Your task to perform on an android device: empty trash in the gmail app Image 0: 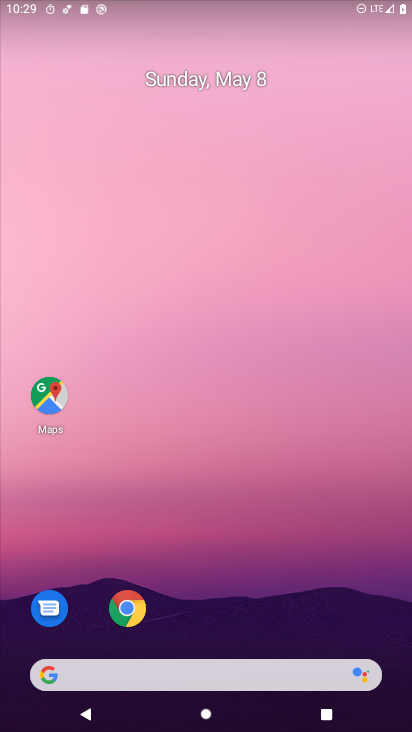
Step 0: drag from (174, 596) to (213, 281)
Your task to perform on an android device: empty trash in the gmail app Image 1: 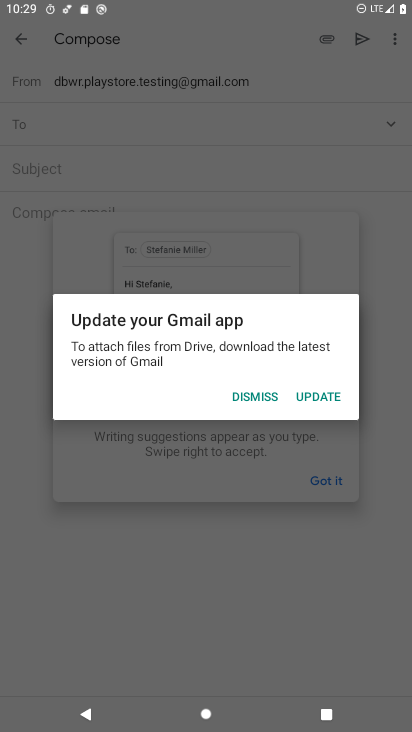
Step 1: press home button
Your task to perform on an android device: empty trash in the gmail app Image 2: 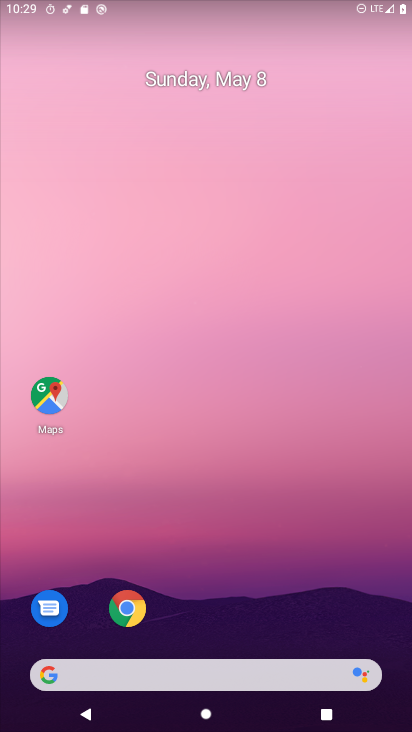
Step 2: drag from (159, 527) to (255, 165)
Your task to perform on an android device: empty trash in the gmail app Image 3: 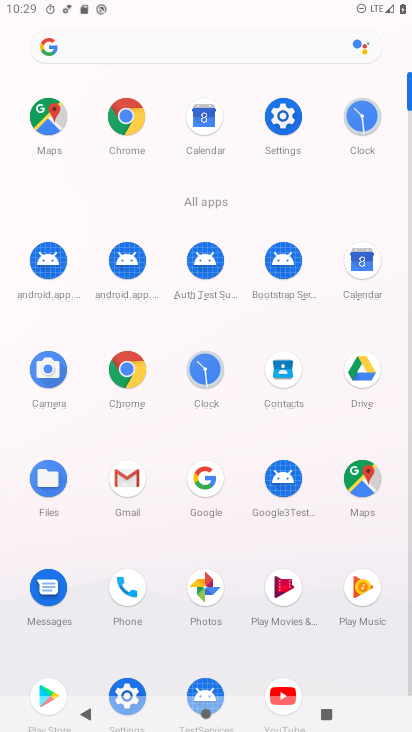
Step 3: click (127, 488)
Your task to perform on an android device: empty trash in the gmail app Image 4: 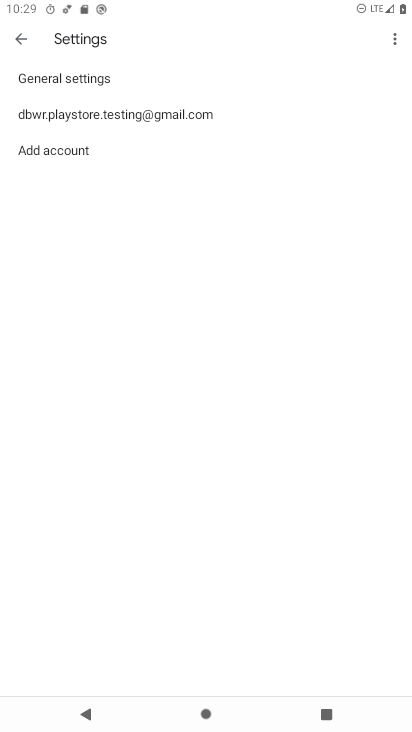
Step 4: click (120, 119)
Your task to perform on an android device: empty trash in the gmail app Image 5: 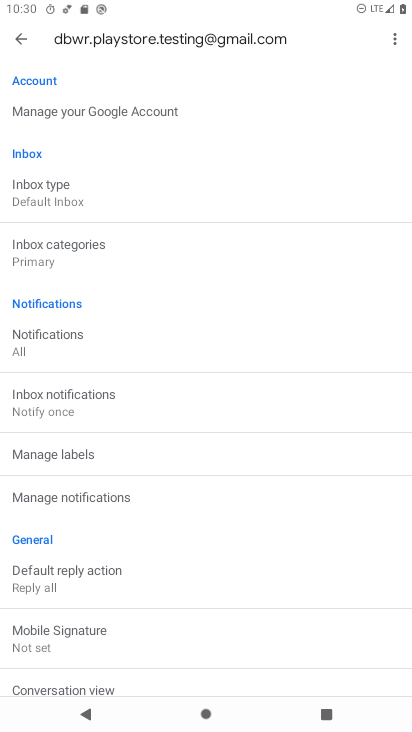
Step 5: click (19, 42)
Your task to perform on an android device: empty trash in the gmail app Image 6: 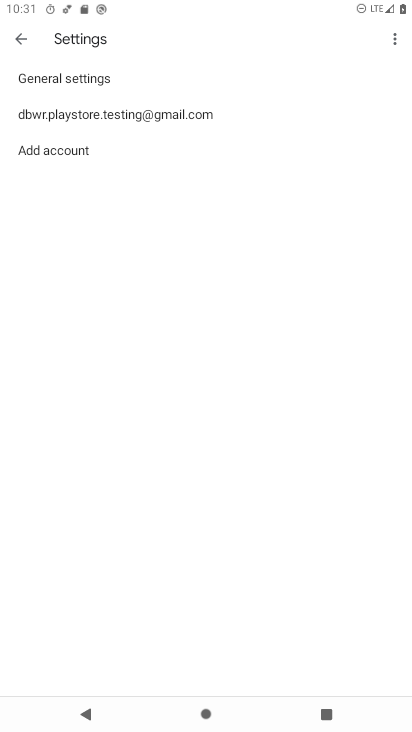
Step 6: click (18, 37)
Your task to perform on an android device: empty trash in the gmail app Image 7: 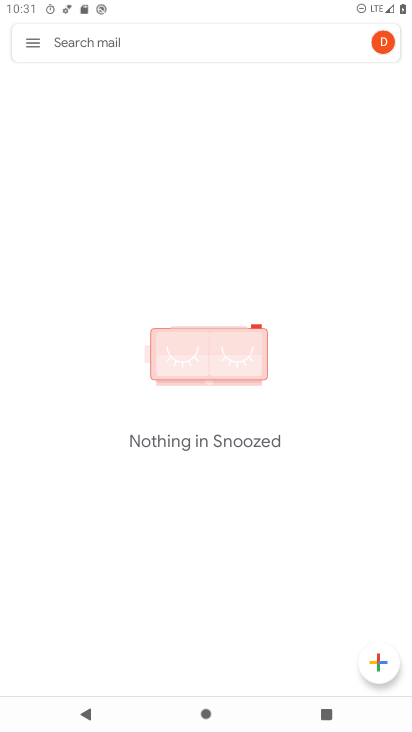
Step 7: click (23, 43)
Your task to perform on an android device: empty trash in the gmail app Image 8: 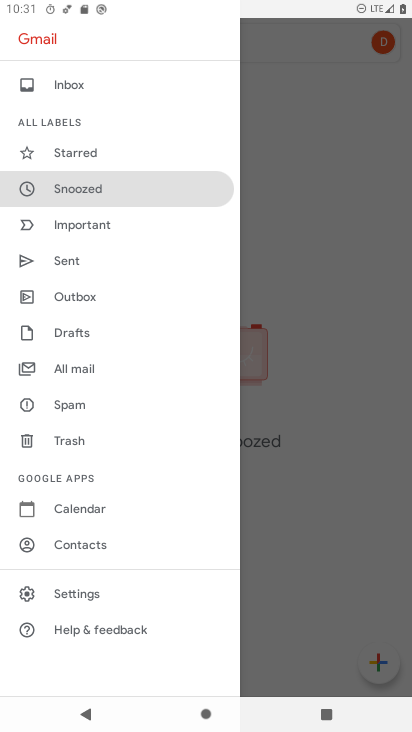
Step 8: click (77, 444)
Your task to perform on an android device: empty trash in the gmail app Image 9: 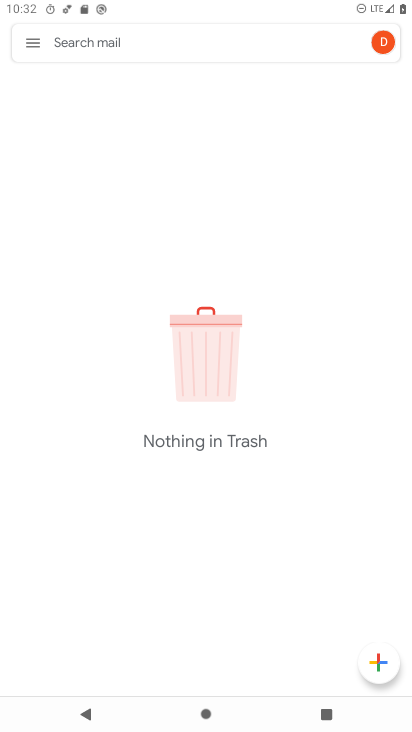
Step 9: task complete